Your task to perform on an android device: Toggle the flashlight Image 0: 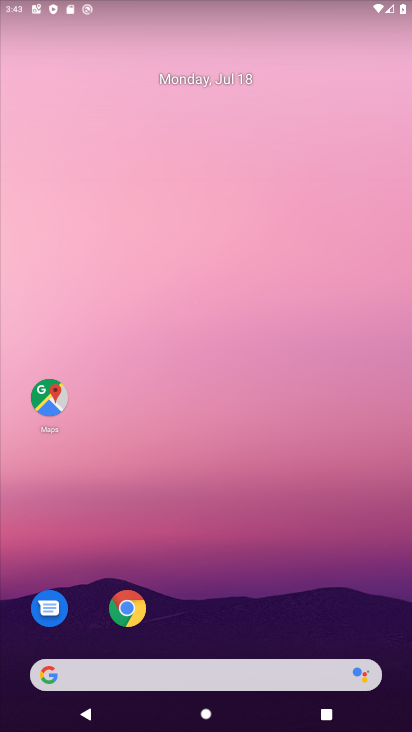
Step 0: drag from (229, 535) to (244, 196)
Your task to perform on an android device: Toggle the flashlight Image 1: 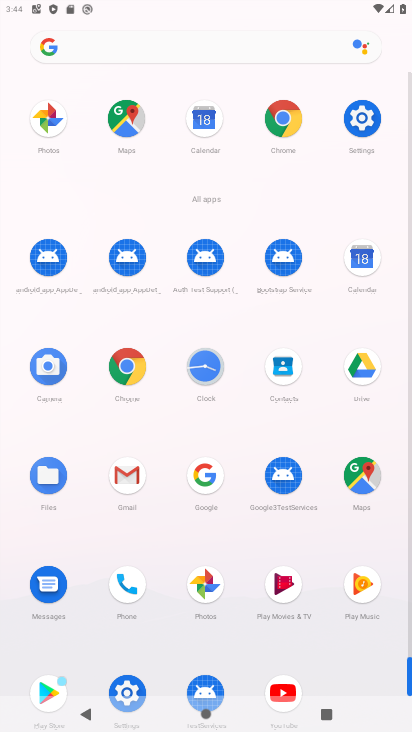
Step 1: click (371, 118)
Your task to perform on an android device: Toggle the flashlight Image 2: 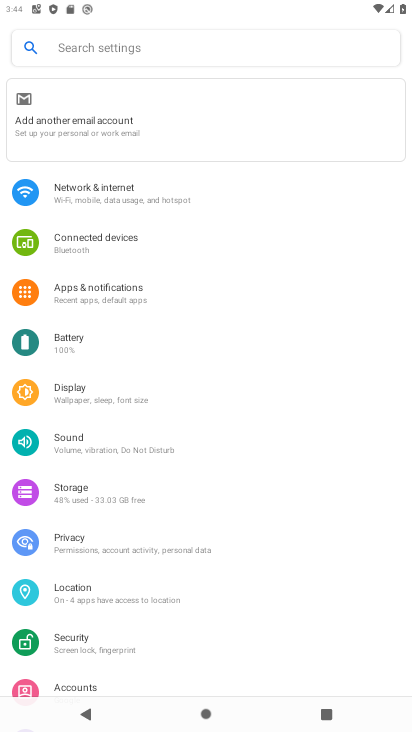
Step 2: task complete